Your task to perform on an android device: clear all cookies in the chrome app Image 0: 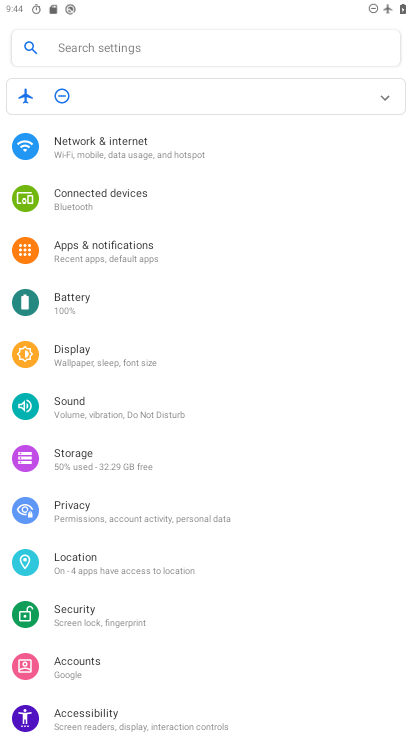
Step 0: press home button
Your task to perform on an android device: clear all cookies in the chrome app Image 1: 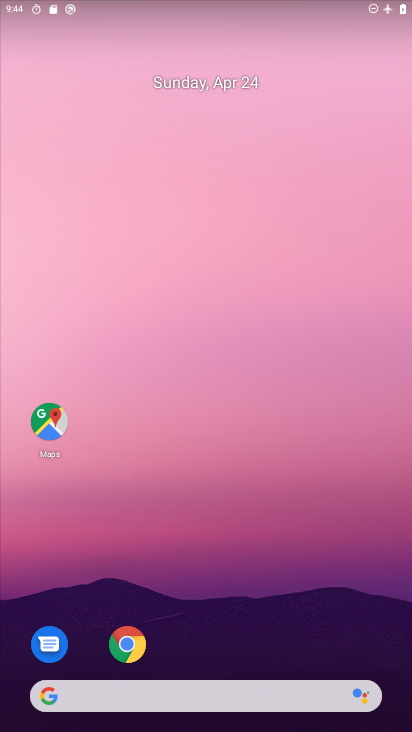
Step 1: drag from (181, 666) to (92, 6)
Your task to perform on an android device: clear all cookies in the chrome app Image 2: 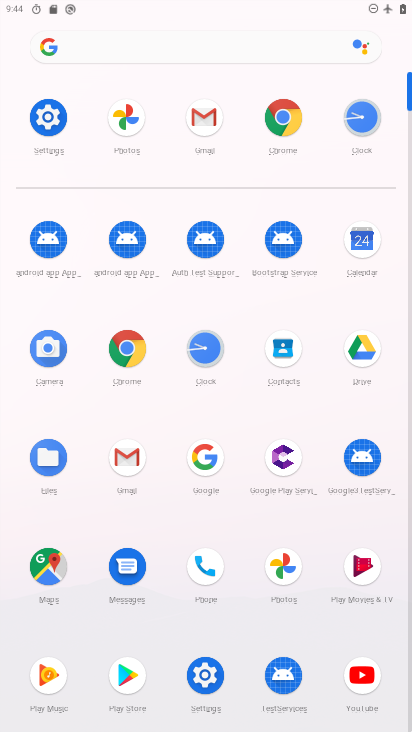
Step 2: click (283, 123)
Your task to perform on an android device: clear all cookies in the chrome app Image 3: 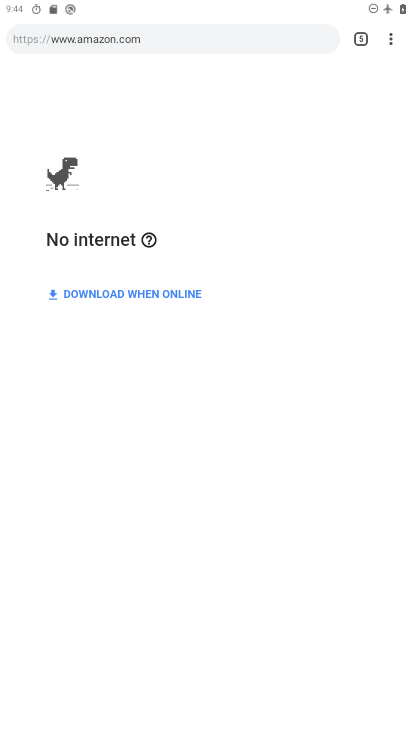
Step 3: drag from (393, 37) to (258, 263)
Your task to perform on an android device: clear all cookies in the chrome app Image 4: 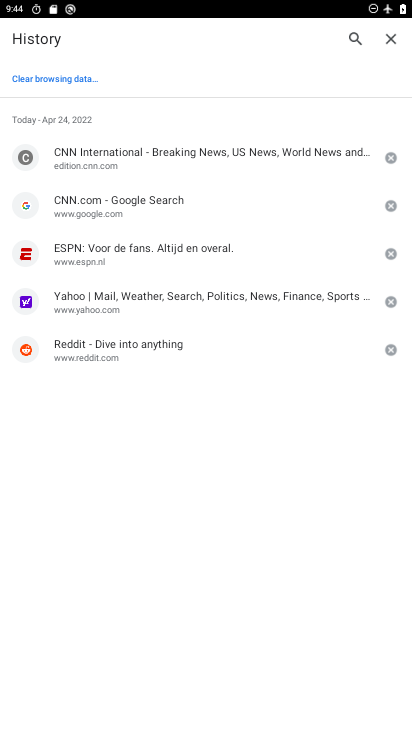
Step 4: click (36, 73)
Your task to perform on an android device: clear all cookies in the chrome app Image 5: 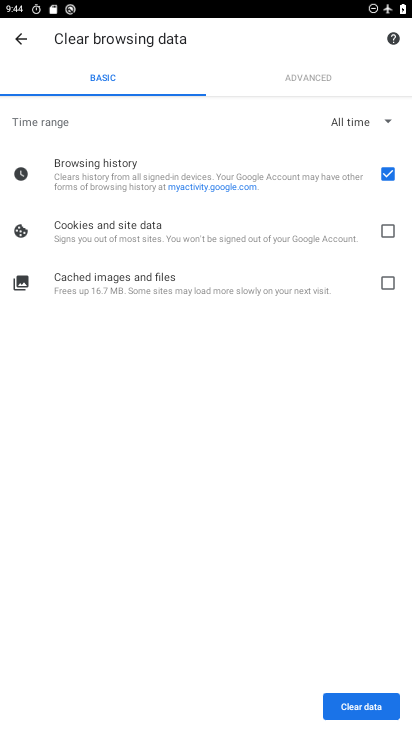
Step 5: click (378, 235)
Your task to perform on an android device: clear all cookies in the chrome app Image 6: 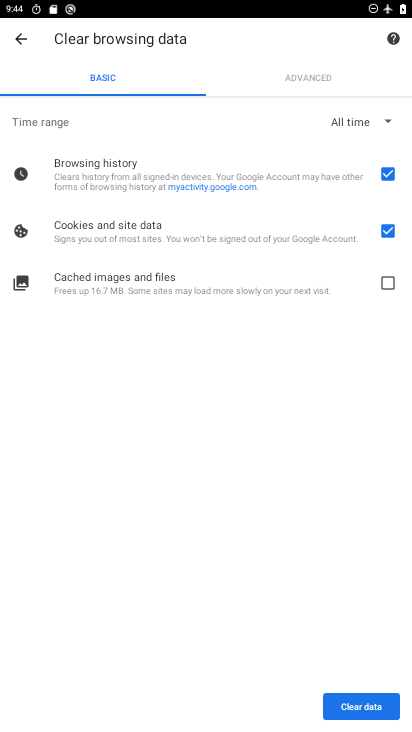
Step 6: click (408, 280)
Your task to perform on an android device: clear all cookies in the chrome app Image 7: 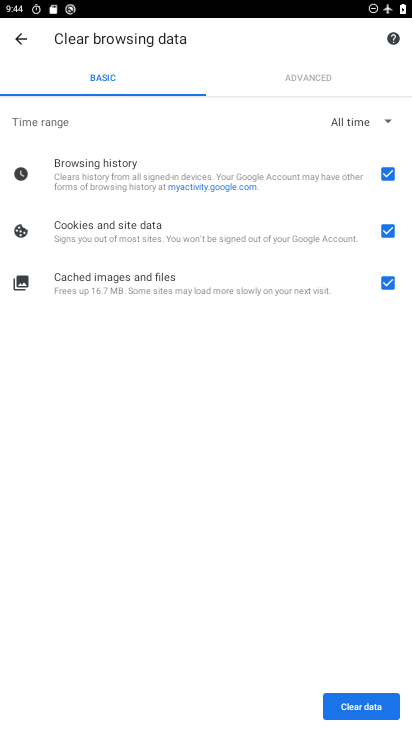
Step 7: click (361, 710)
Your task to perform on an android device: clear all cookies in the chrome app Image 8: 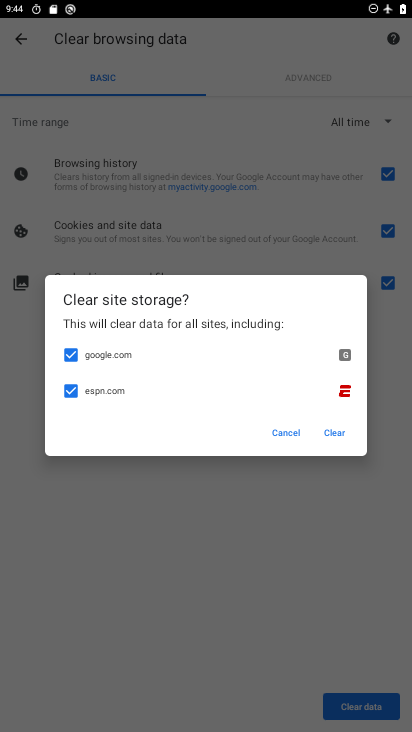
Step 8: click (325, 437)
Your task to perform on an android device: clear all cookies in the chrome app Image 9: 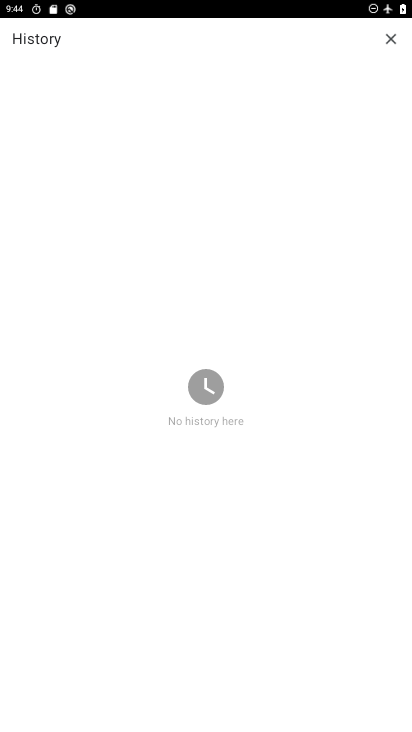
Step 9: task complete